Your task to perform on an android device: Go to Wikipedia Image 0: 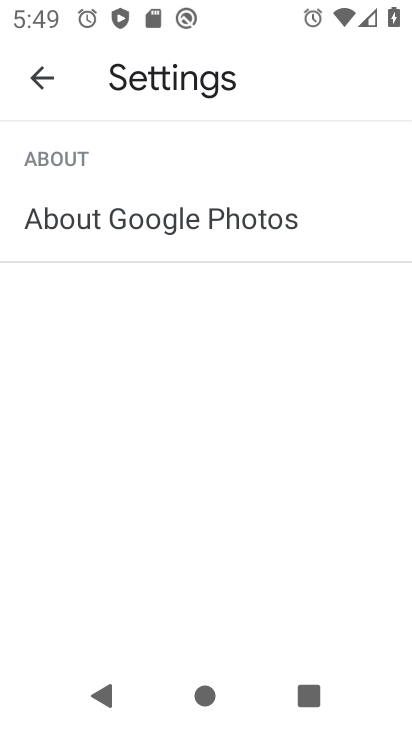
Step 0: press home button
Your task to perform on an android device: Go to Wikipedia Image 1: 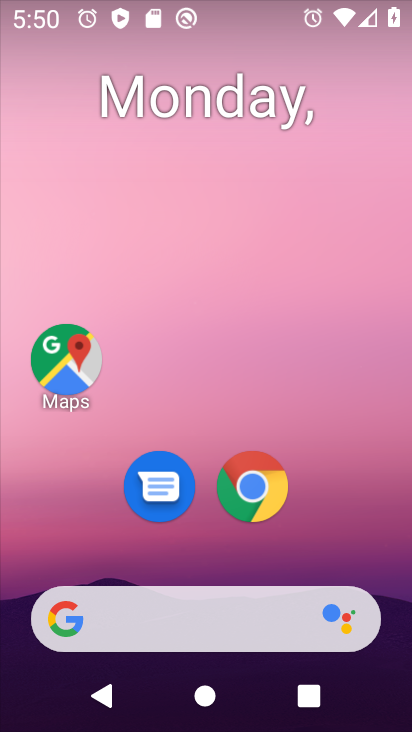
Step 1: drag from (321, 516) to (330, 93)
Your task to perform on an android device: Go to Wikipedia Image 2: 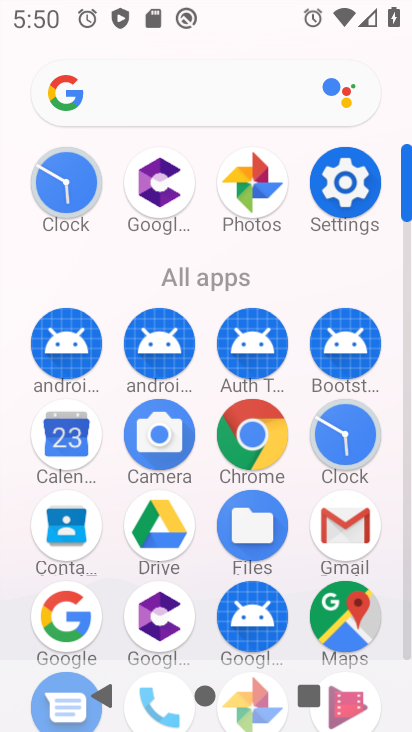
Step 2: click (248, 430)
Your task to perform on an android device: Go to Wikipedia Image 3: 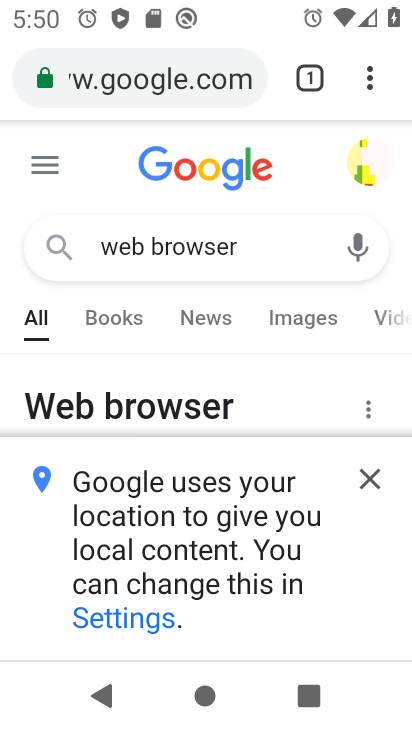
Step 3: drag from (366, 78) to (210, 512)
Your task to perform on an android device: Go to Wikipedia Image 4: 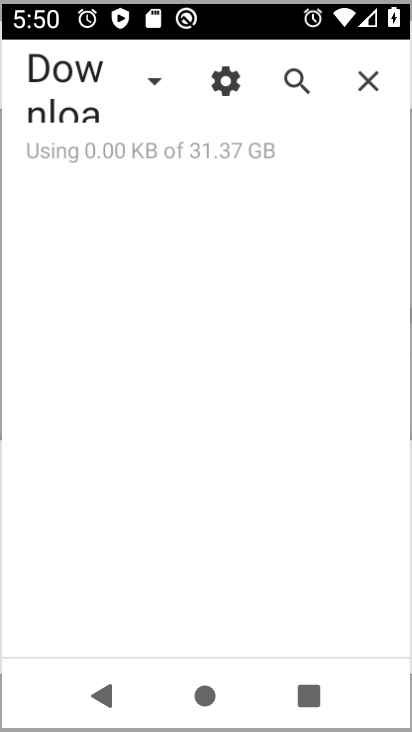
Step 4: click (210, 512)
Your task to perform on an android device: Go to Wikipedia Image 5: 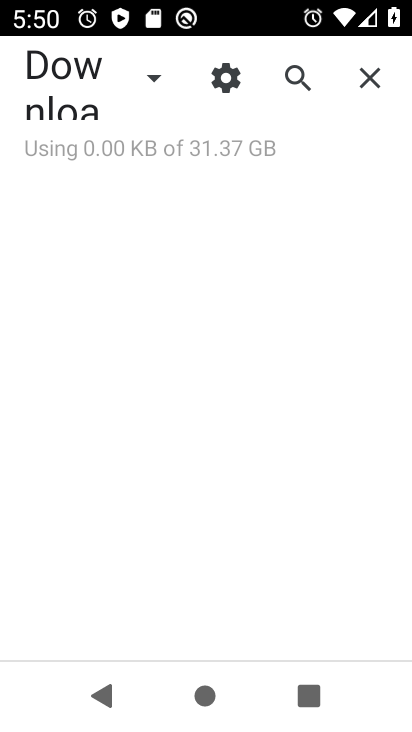
Step 5: click (383, 79)
Your task to perform on an android device: Go to Wikipedia Image 6: 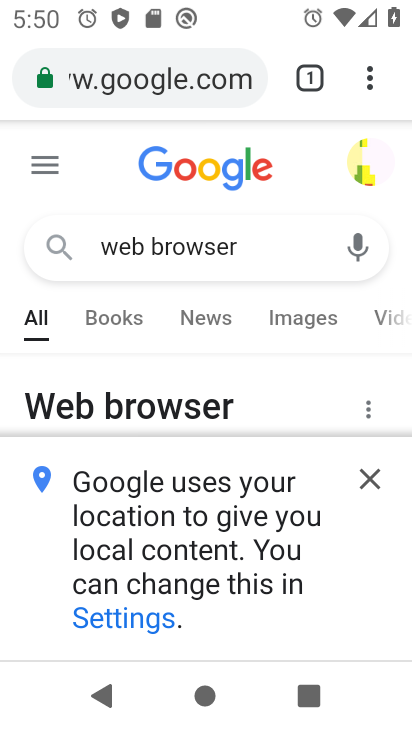
Step 6: drag from (369, 82) to (247, 158)
Your task to perform on an android device: Go to Wikipedia Image 7: 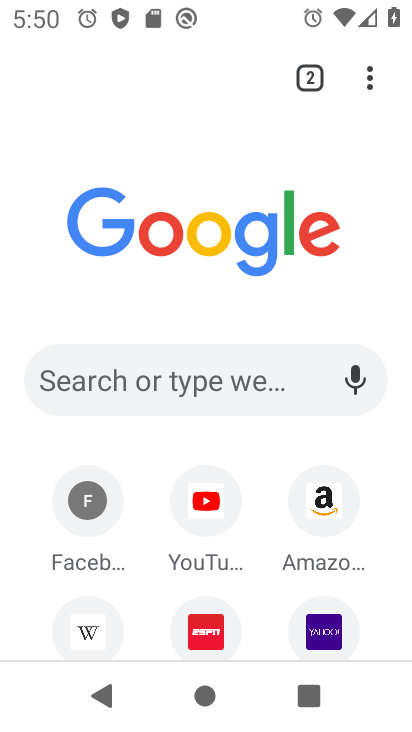
Step 7: click (83, 625)
Your task to perform on an android device: Go to Wikipedia Image 8: 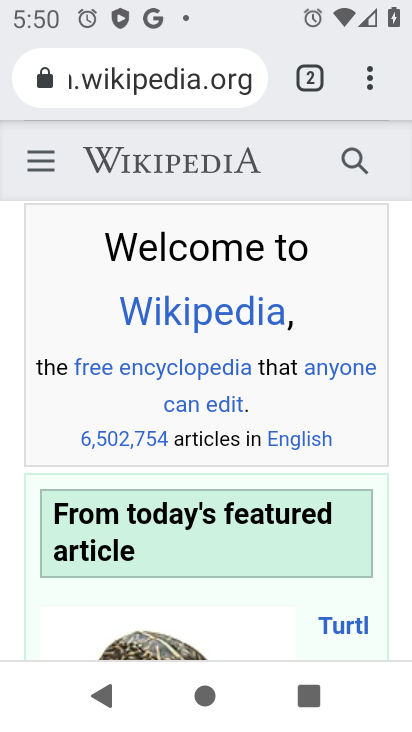
Step 8: task complete